Your task to perform on an android device: What's on the menu at Chipotle? Image 0: 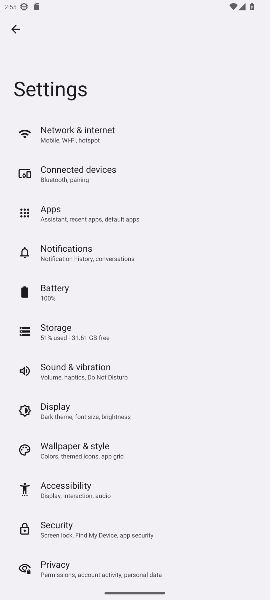
Step 0: press home button
Your task to perform on an android device: What's on the menu at Chipotle? Image 1: 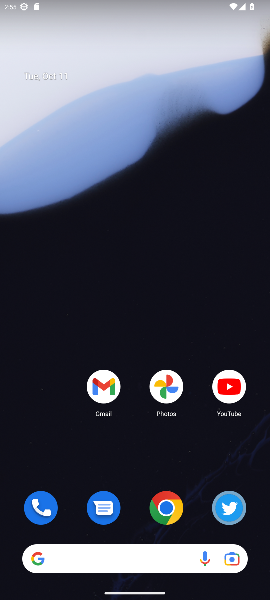
Step 1: click (171, 507)
Your task to perform on an android device: What's on the menu at Chipotle? Image 2: 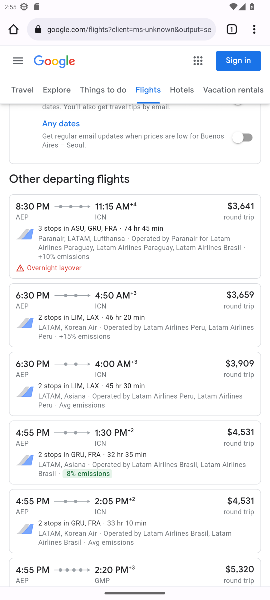
Step 2: click (72, 30)
Your task to perform on an android device: What's on the menu at Chipotle? Image 3: 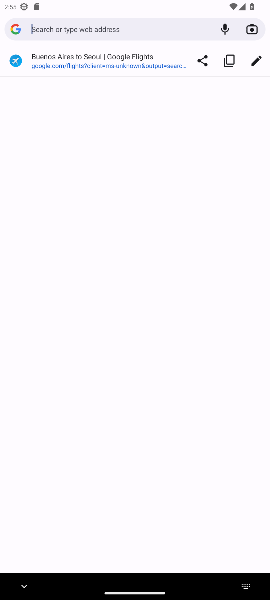
Step 3: type "menu at Chipotle"
Your task to perform on an android device: What's on the menu at Chipotle? Image 4: 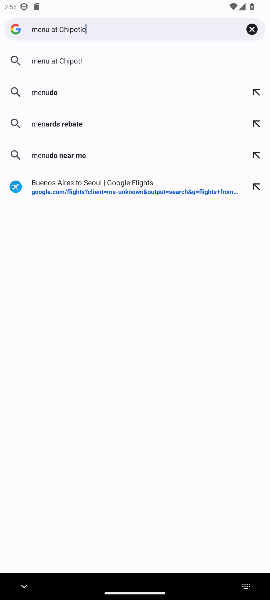
Step 4: type ""
Your task to perform on an android device: What's on the menu at Chipotle? Image 5: 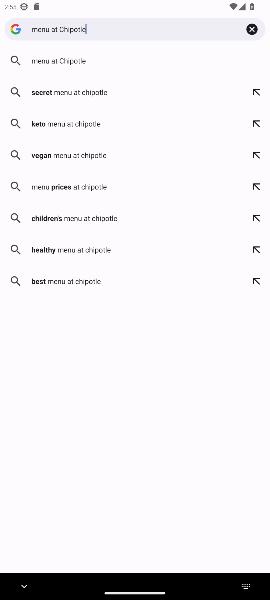
Step 5: press enter
Your task to perform on an android device: What's on the menu at Chipotle? Image 6: 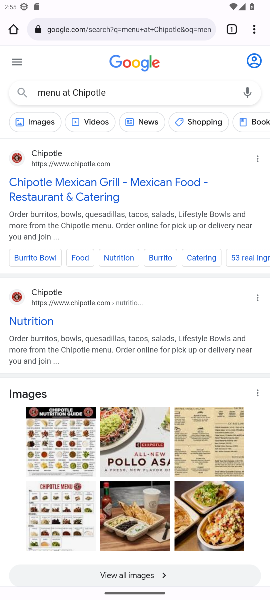
Step 6: click (53, 190)
Your task to perform on an android device: What's on the menu at Chipotle? Image 7: 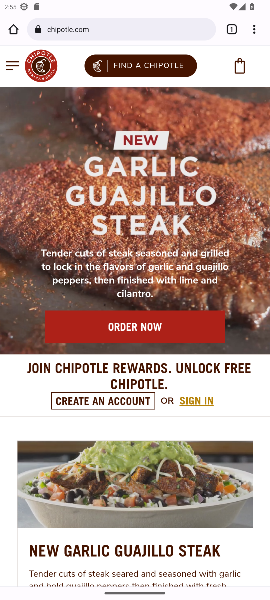
Step 7: click (12, 61)
Your task to perform on an android device: What's on the menu at Chipotle? Image 8: 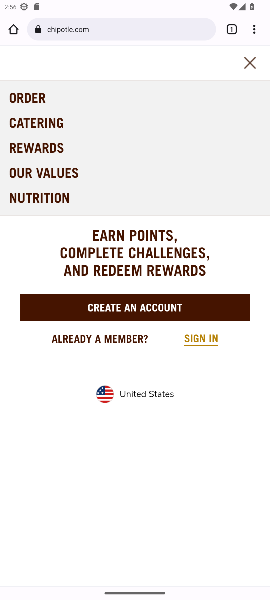
Step 8: click (39, 200)
Your task to perform on an android device: What's on the menu at Chipotle? Image 9: 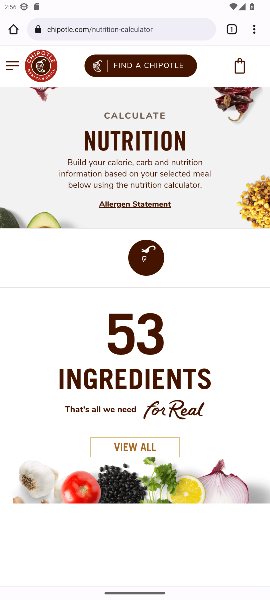
Step 9: drag from (218, 406) to (120, 179)
Your task to perform on an android device: What's on the menu at Chipotle? Image 10: 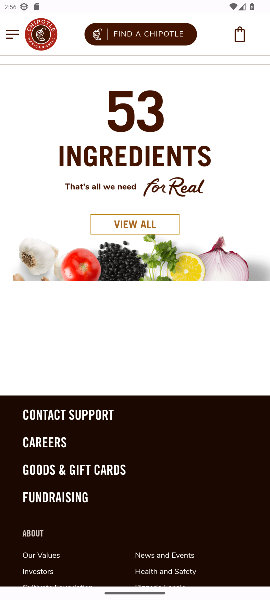
Step 10: drag from (54, 285) to (114, 446)
Your task to perform on an android device: What's on the menu at Chipotle? Image 11: 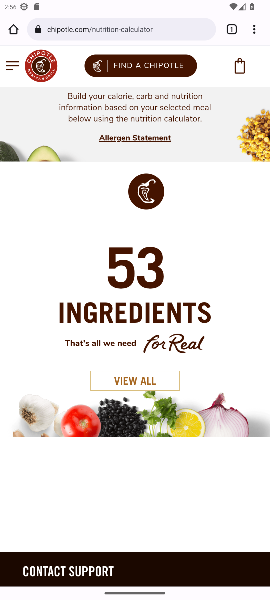
Step 11: click (10, 66)
Your task to perform on an android device: What's on the menu at Chipotle? Image 12: 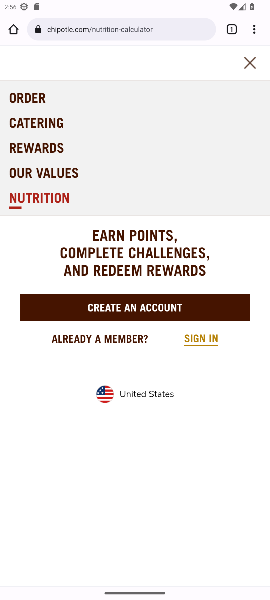
Step 12: click (35, 99)
Your task to perform on an android device: What's on the menu at Chipotle? Image 13: 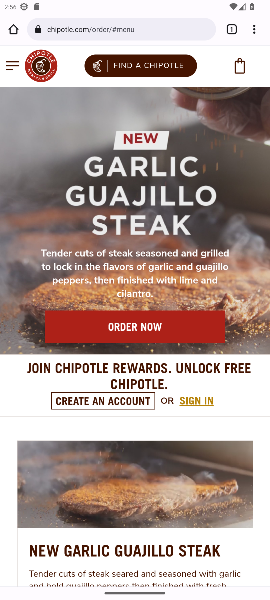
Step 13: task complete